Your task to perform on an android device: Open the map Image 0: 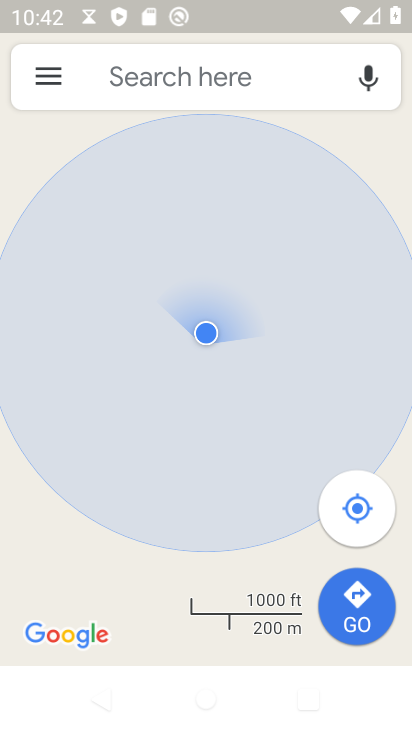
Step 0: press home button
Your task to perform on an android device: Open the map Image 1: 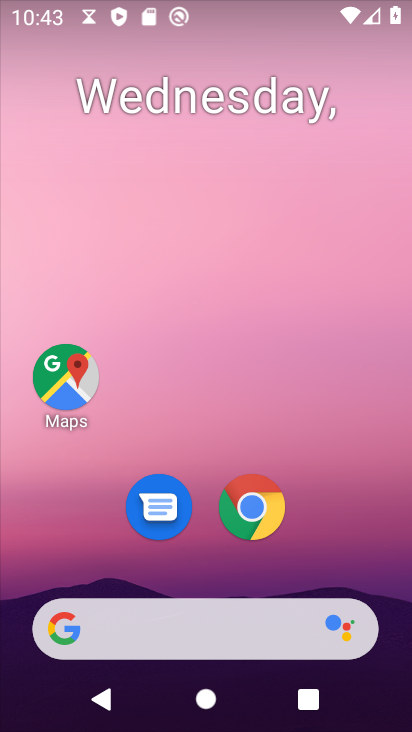
Step 1: drag from (289, 674) to (198, 199)
Your task to perform on an android device: Open the map Image 2: 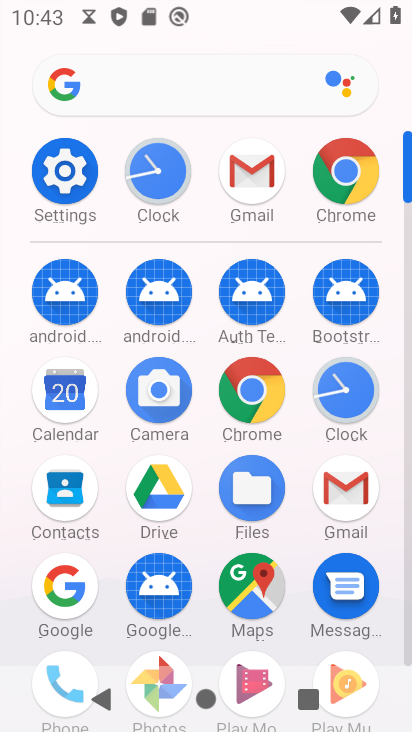
Step 2: click (249, 580)
Your task to perform on an android device: Open the map Image 3: 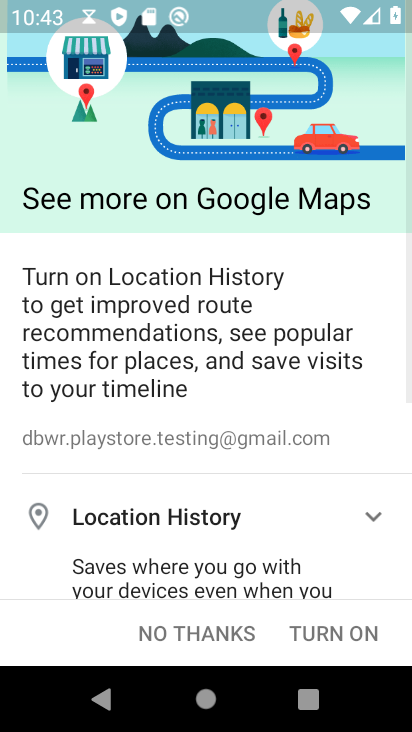
Step 3: click (226, 642)
Your task to perform on an android device: Open the map Image 4: 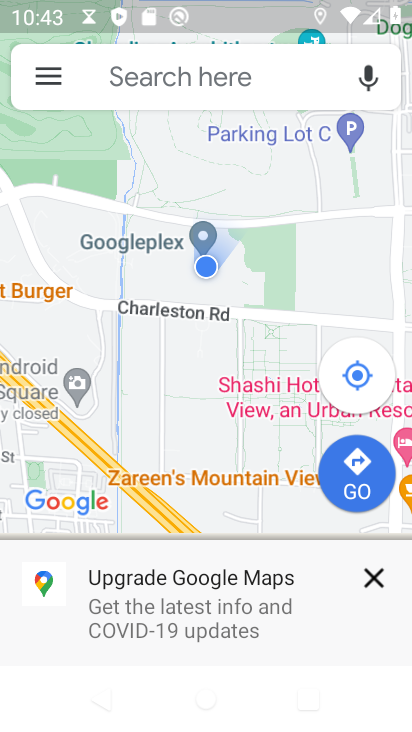
Step 4: click (379, 579)
Your task to perform on an android device: Open the map Image 5: 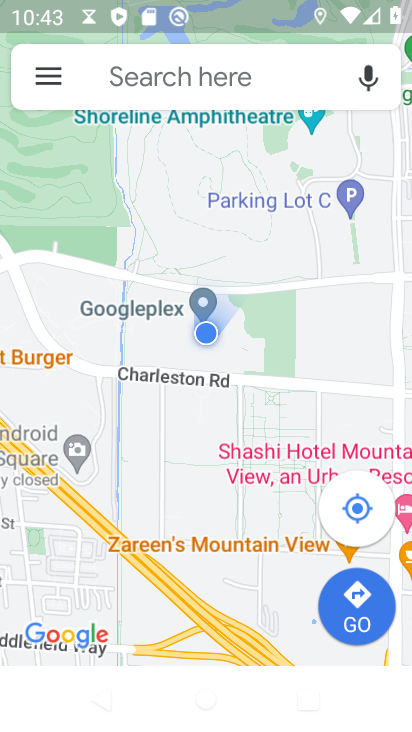
Step 5: task complete